Your task to perform on an android device: Search for seafood restaurants on Google Maps Image 0: 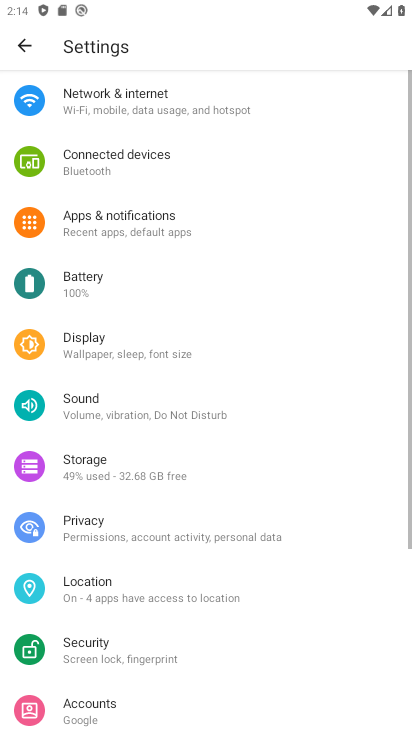
Step 0: press home button
Your task to perform on an android device: Search for seafood restaurants on Google Maps Image 1: 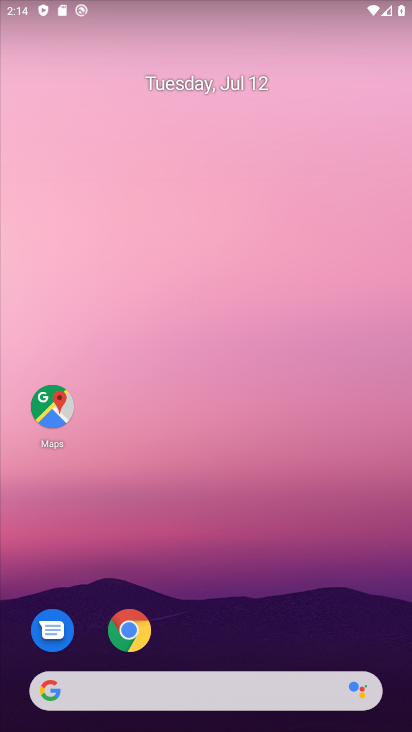
Step 1: click (55, 408)
Your task to perform on an android device: Search for seafood restaurants on Google Maps Image 2: 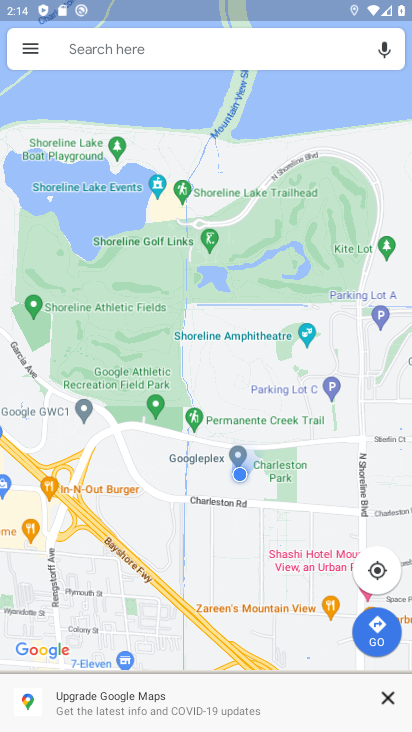
Step 2: click (96, 47)
Your task to perform on an android device: Search for seafood restaurants on Google Maps Image 3: 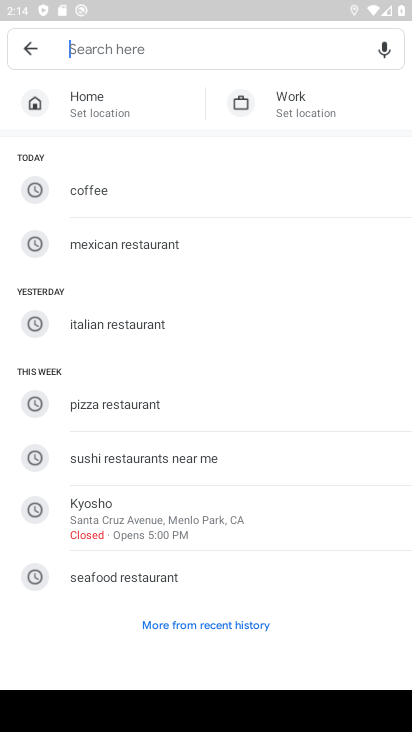
Step 3: type "seafood restaurants"
Your task to perform on an android device: Search for seafood restaurants on Google Maps Image 4: 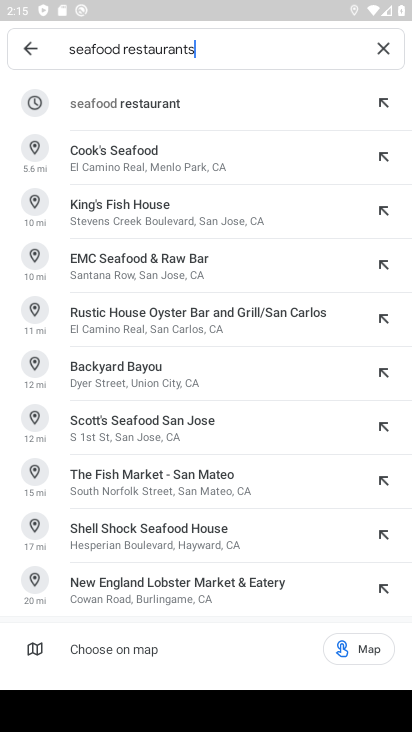
Step 4: click (104, 101)
Your task to perform on an android device: Search for seafood restaurants on Google Maps Image 5: 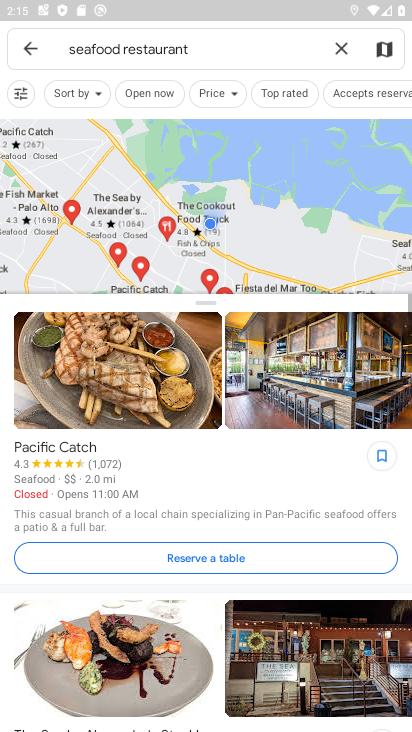
Step 5: task complete